Your task to perform on an android device: manage bookmarks in the chrome app Image 0: 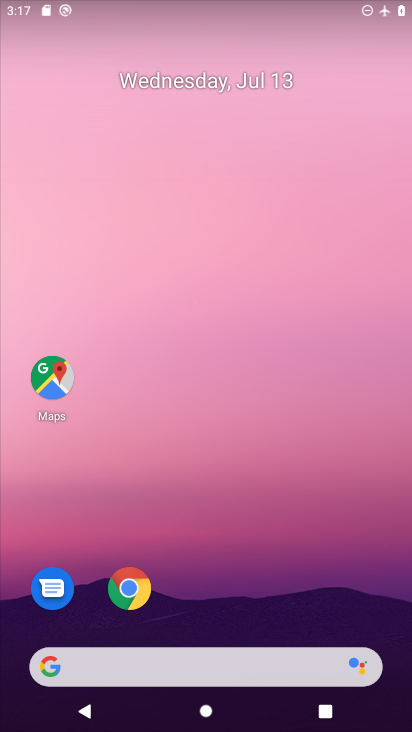
Step 0: drag from (181, 646) to (249, 101)
Your task to perform on an android device: manage bookmarks in the chrome app Image 1: 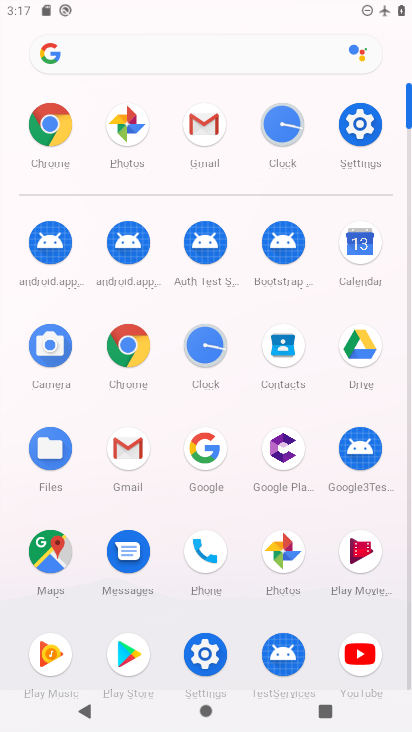
Step 1: click (120, 354)
Your task to perform on an android device: manage bookmarks in the chrome app Image 2: 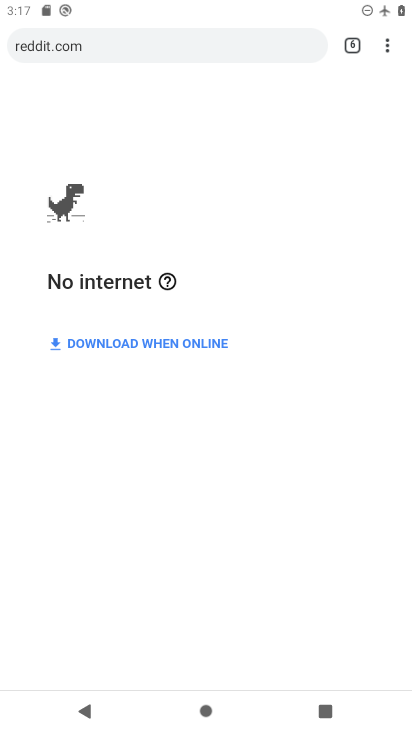
Step 2: drag from (386, 46) to (274, 169)
Your task to perform on an android device: manage bookmarks in the chrome app Image 3: 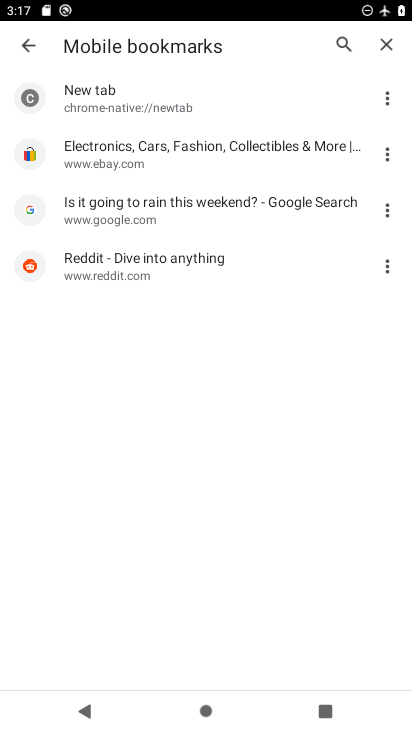
Step 3: click (379, 102)
Your task to perform on an android device: manage bookmarks in the chrome app Image 4: 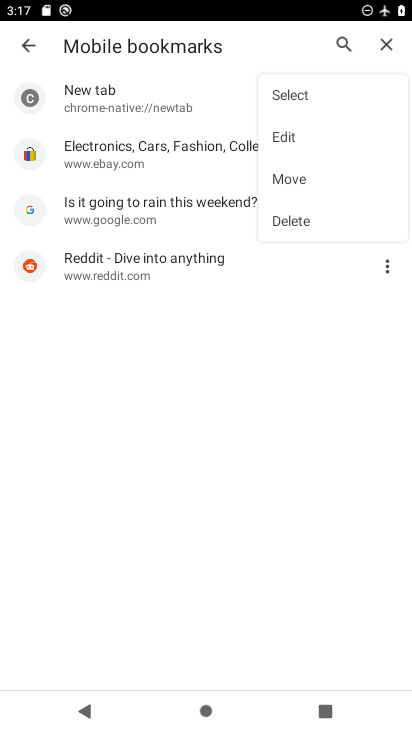
Step 4: click (297, 127)
Your task to perform on an android device: manage bookmarks in the chrome app Image 5: 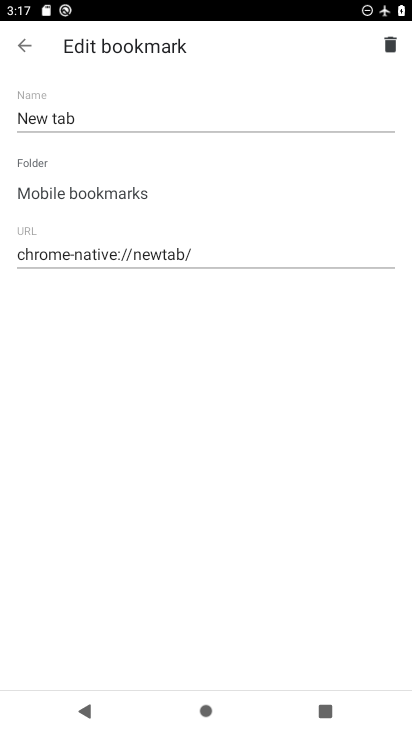
Step 5: task complete